Your task to perform on an android device: toggle data saver in the chrome app Image 0: 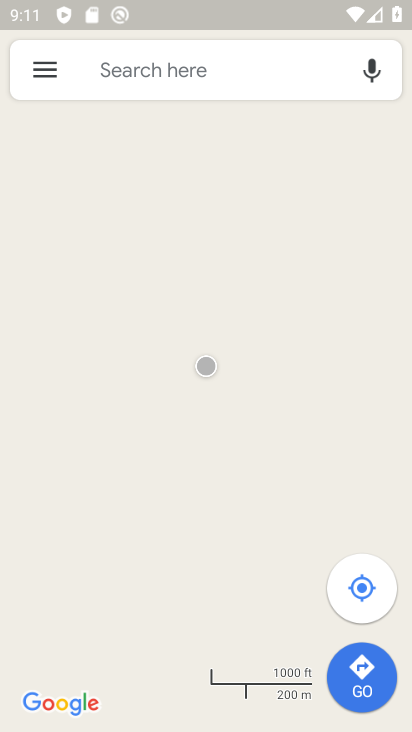
Step 0: press home button
Your task to perform on an android device: toggle data saver in the chrome app Image 1: 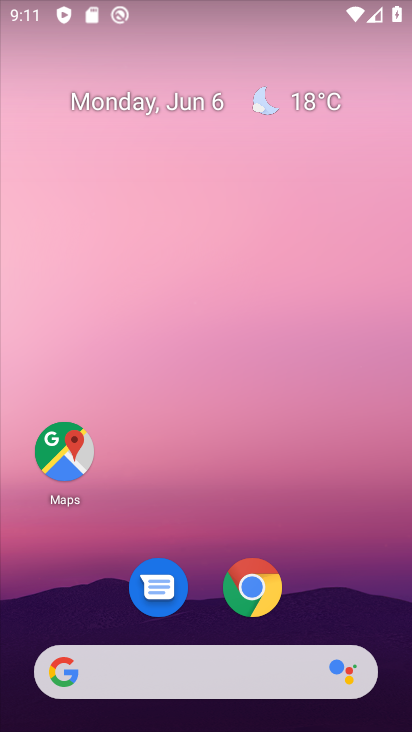
Step 1: click (251, 586)
Your task to perform on an android device: toggle data saver in the chrome app Image 2: 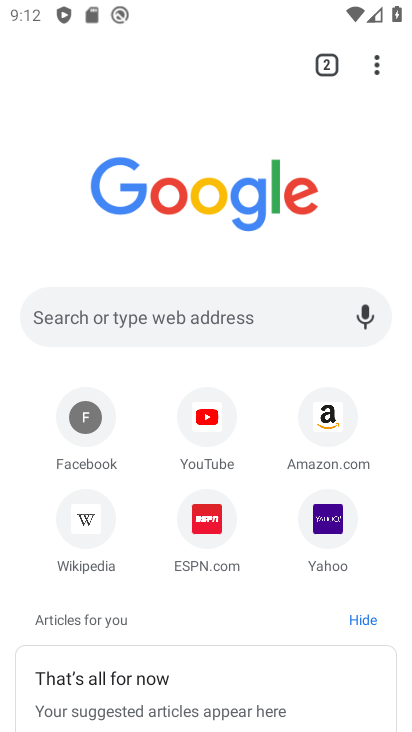
Step 2: click (380, 69)
Your task to perform on an android device: toggle data saver in the chrome app Image 3: 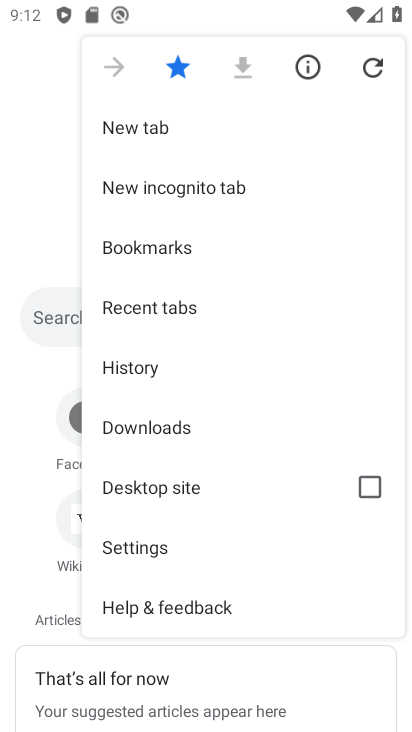
Step 3: drag from (223, 585) to (216, 301)
Your task to perform on an android device: toggle data saver in the chrome app Image 4: 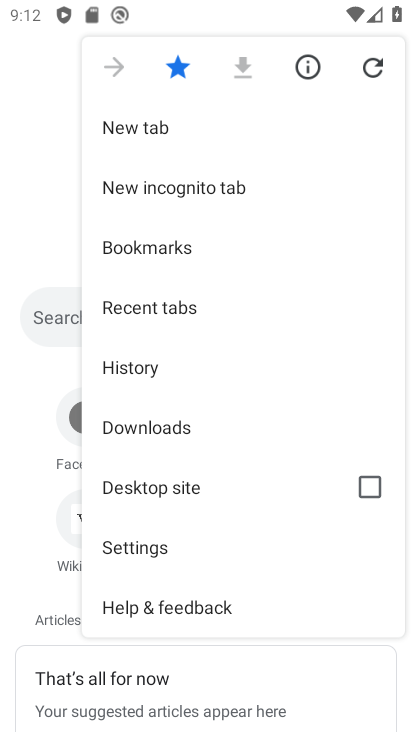
Step 4: click (164, 558)
Your task to perform on an android device: toggle data saver in the chrome app Image 5: 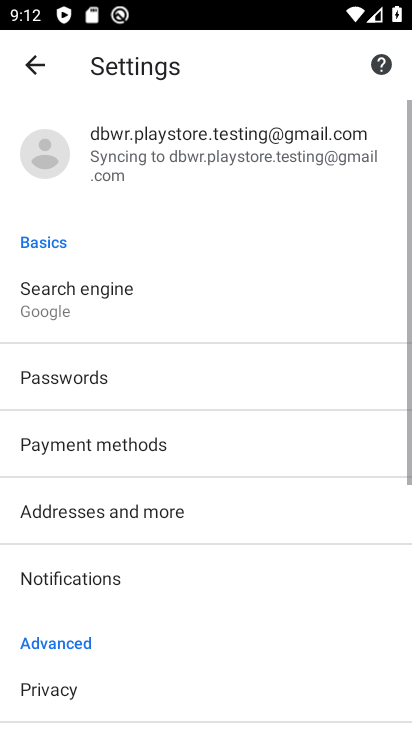
Step 5: drag from (111, 653) to (216, 203)
Your task to perform on an android device: toggle data saver in the chrome app Image 6: 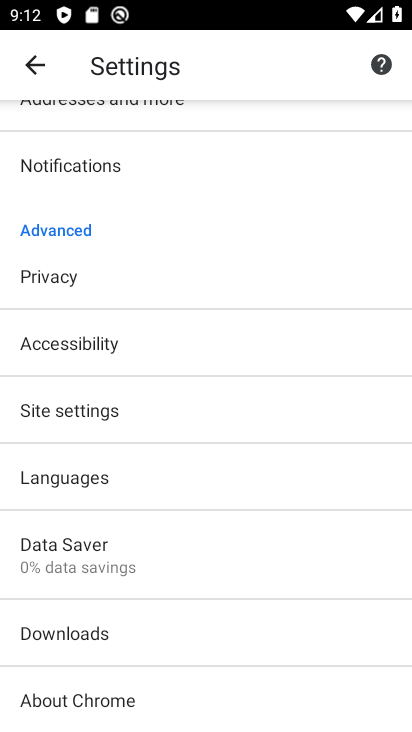
Step 6: click (104, 534)
Your task to perform on an android device: toggle data saver in the chrome app Image 7: 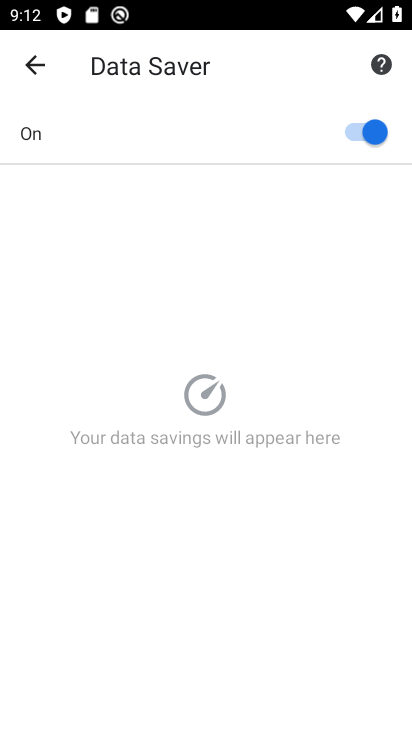
Step 7: click (363, 130)
Your task to perform on an android device: toggle data saver in the chrome app Image 8: 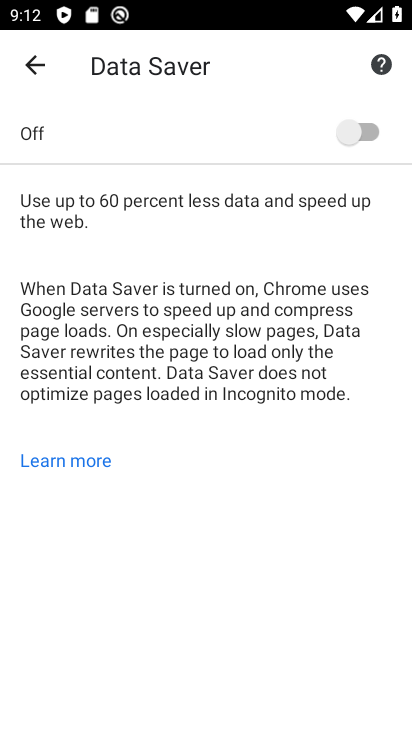
Step 8: task complete